Your task to perform on an android device: check android version Image 0: 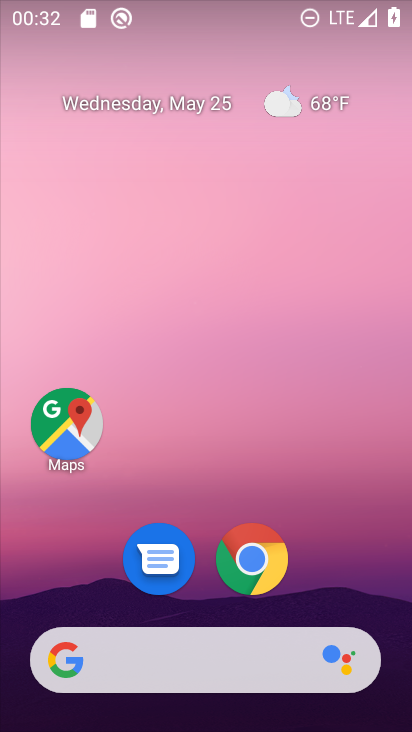
Step 0: drag from (380, 584) to (361, 109)
Your task to perform on an android device: check android version Image 1: 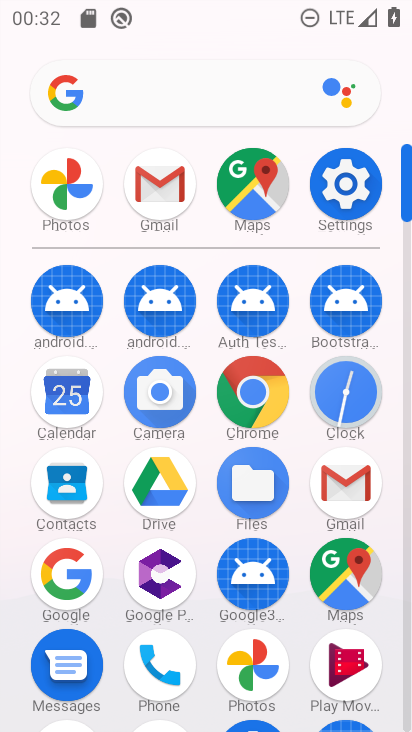
Step 1: click (407, 655)
Your task to perform on an android device: check android version Image 2: 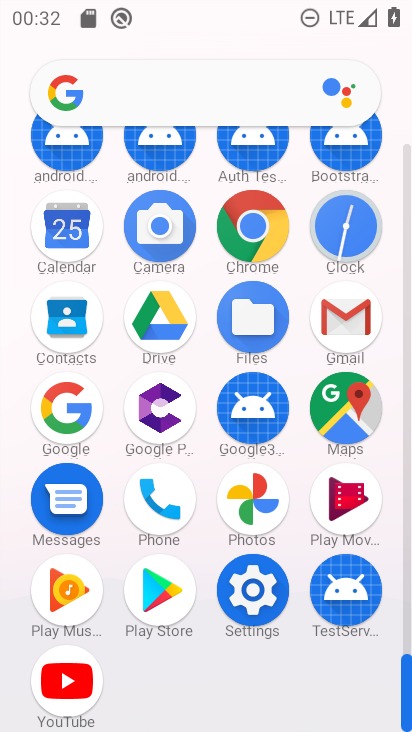
Step 2: click (254, 594)
Your task to perform on an android device: check android version Image 3: 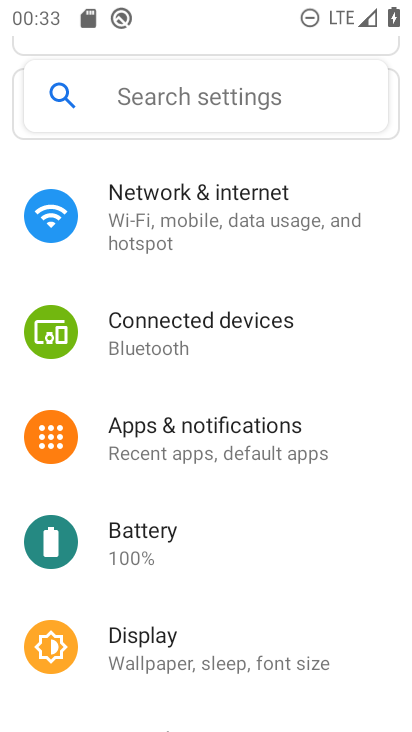
Step 3: drag from (273, 651) to (279, 235)
Your task to perform on an android device: check android version Image 4: 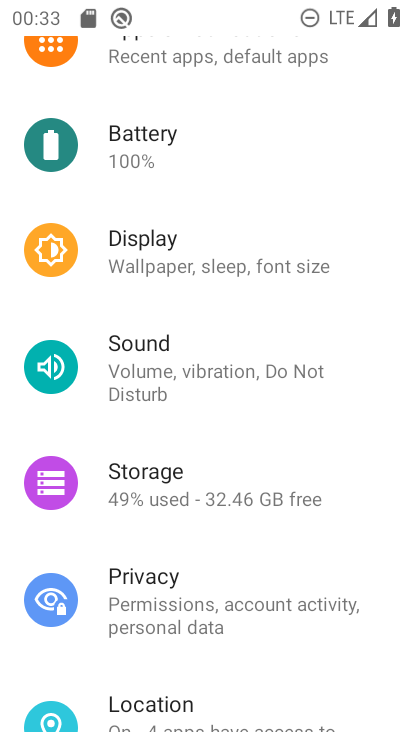
Step 4: drag from (291, 622) to (297, 251)
Your task to perform on an android device: check android version Image 5: 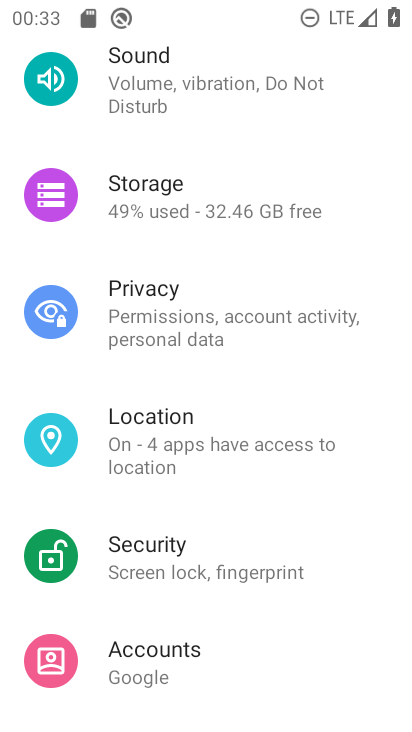
Step 5: drag from (306, 629) to (289, 247)
Your task to perform on an android device: check android version Image 6: 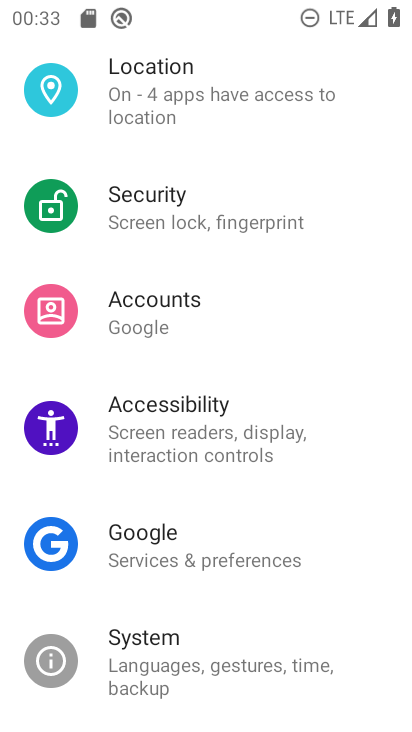
Step 6: drag from (189, 690) to (260, 236)
Your task to perform on an android device: check android version Image 7: 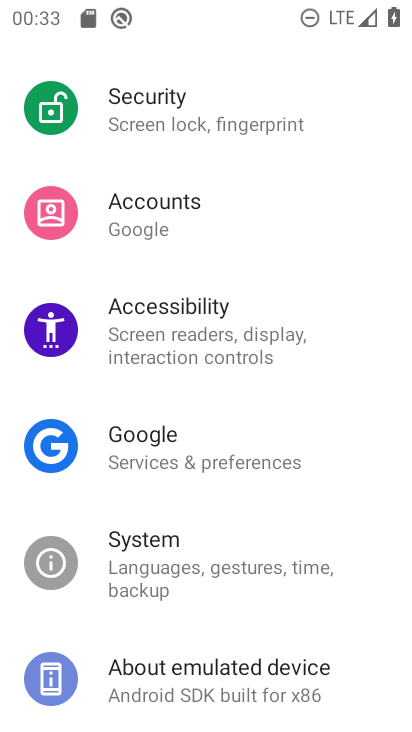
Step 7: click (172, 693)
Your task to perform on an android device: check android version Image 8: 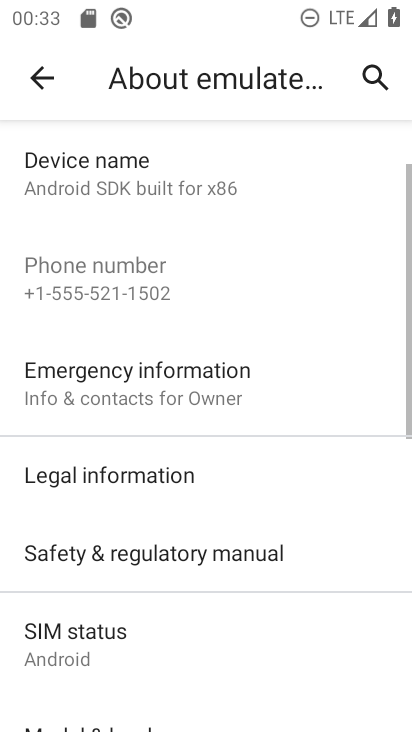
Step 8: drag from (236, 548) to (194, 103)
Your task to perform on an android device: check android version Image 9: 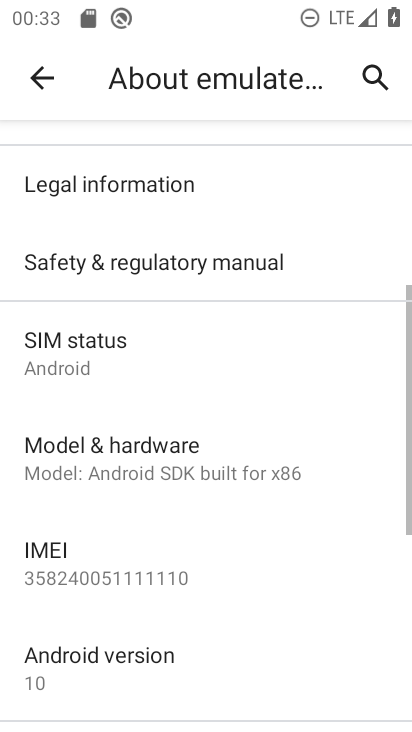
Step 9: click (104, 658)
Your task to perform on an android device: check android version Image 10: 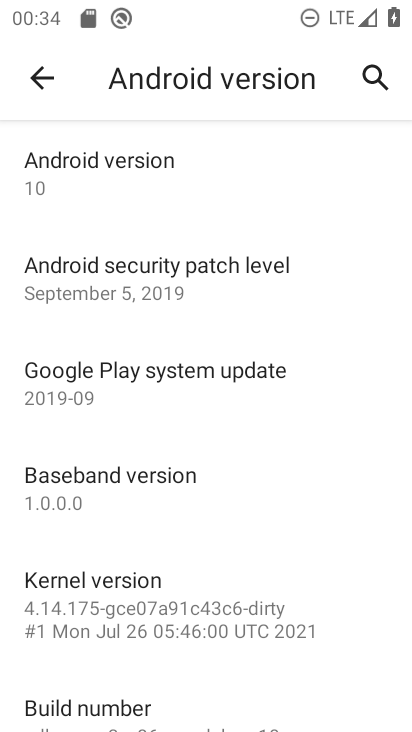
Step 10: task complete